Your task to perform on an android device: toggle data saver in the chrome app Image 0: 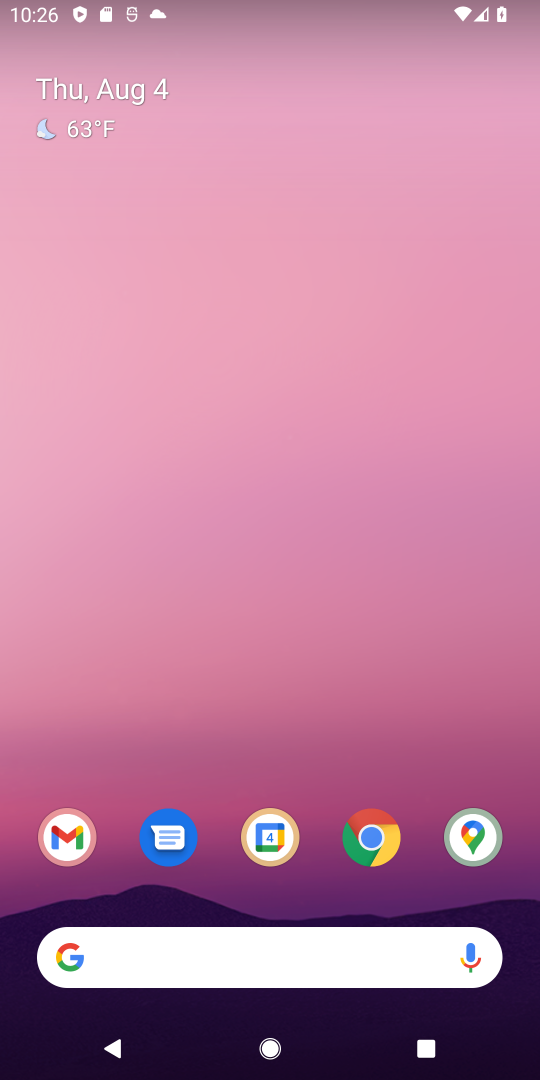
Step 0: press home button
Your task to perform on an android device: toggle data saver in the chrome app Image 1: 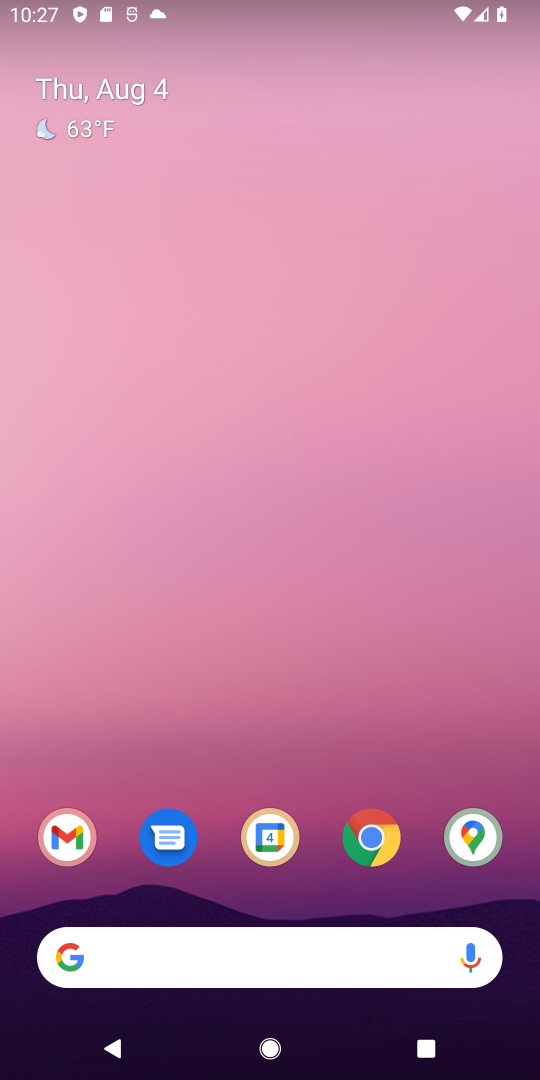
Step 1: click (366, 825)
Your task to perform on an android device: toggle data saver in the chrome app Image 2: 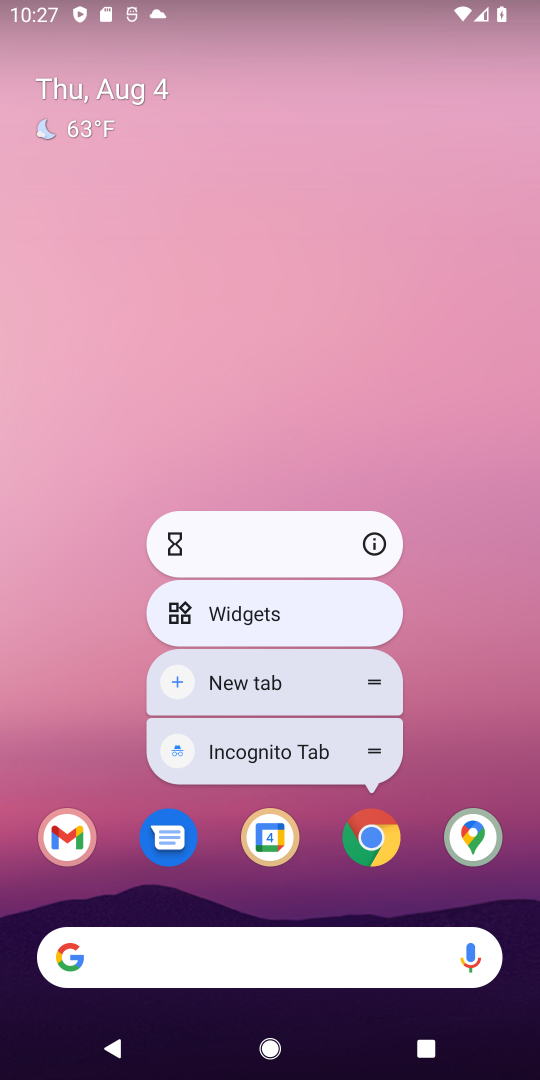
Step 2: click (369, 837)
Your task to perform on an android device: toggle data saver in the chrome app Image 3: 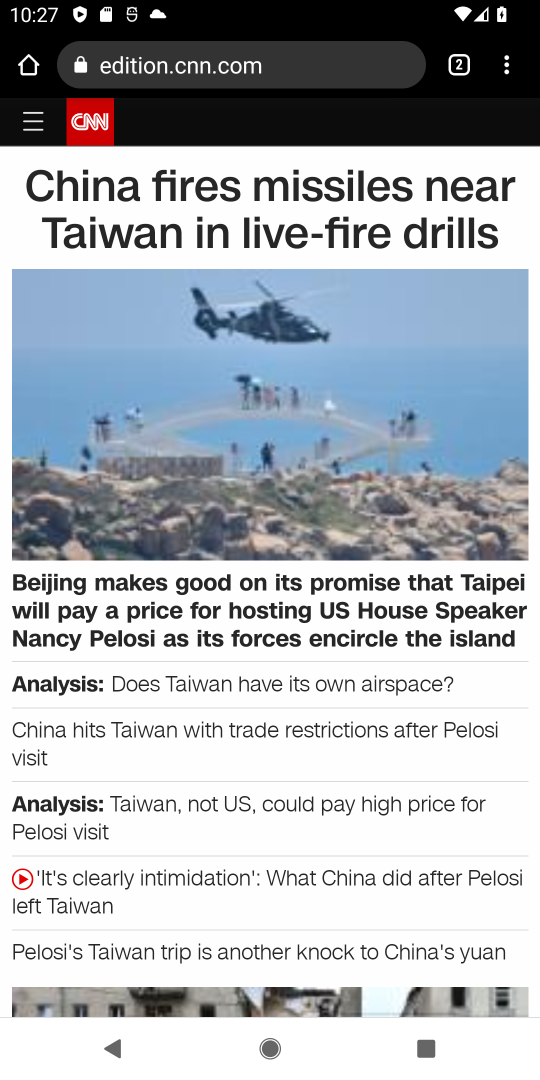
Step 3: click (505, 65)
Your task to perform on an android device: toggle data saver in the chrome app Image 4: 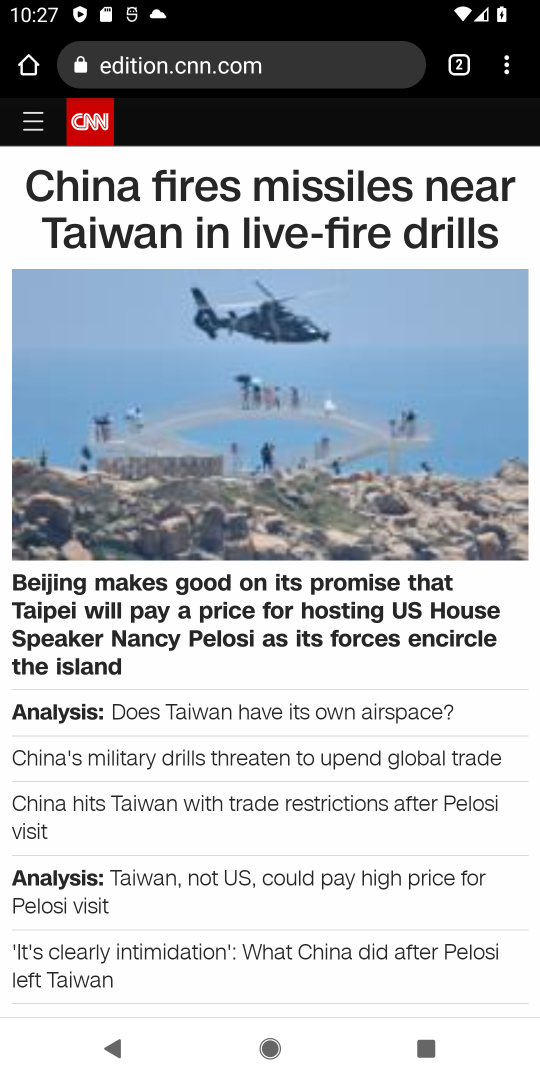
Step 4: click (512, 72)
Your task to perform on an android device: toggle data saver in the chrome app Image 5: 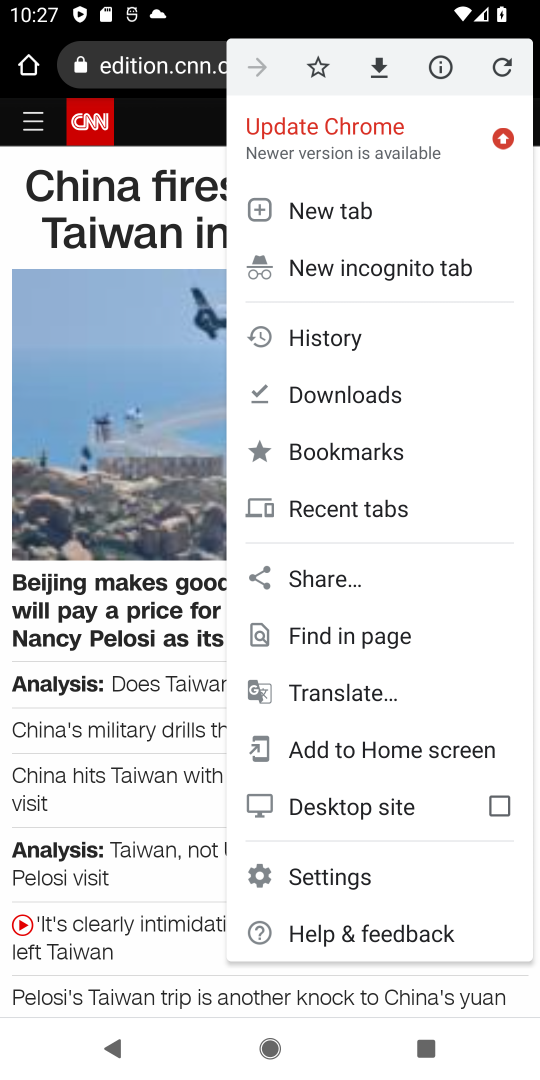
Step 5: click (377, 873)
Your task to perform on an android device: toggle data saver in the chrome app Image 6: 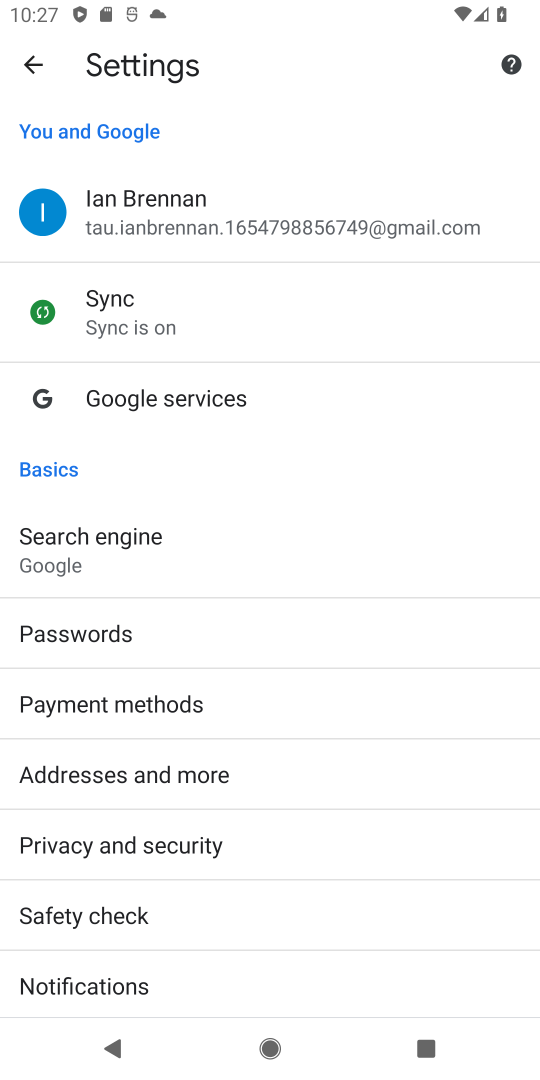
Step 6: drag from (248, 967) to (354, 243)
Your task to perform on an android device: toggle data saver in the chrome app Image 7: 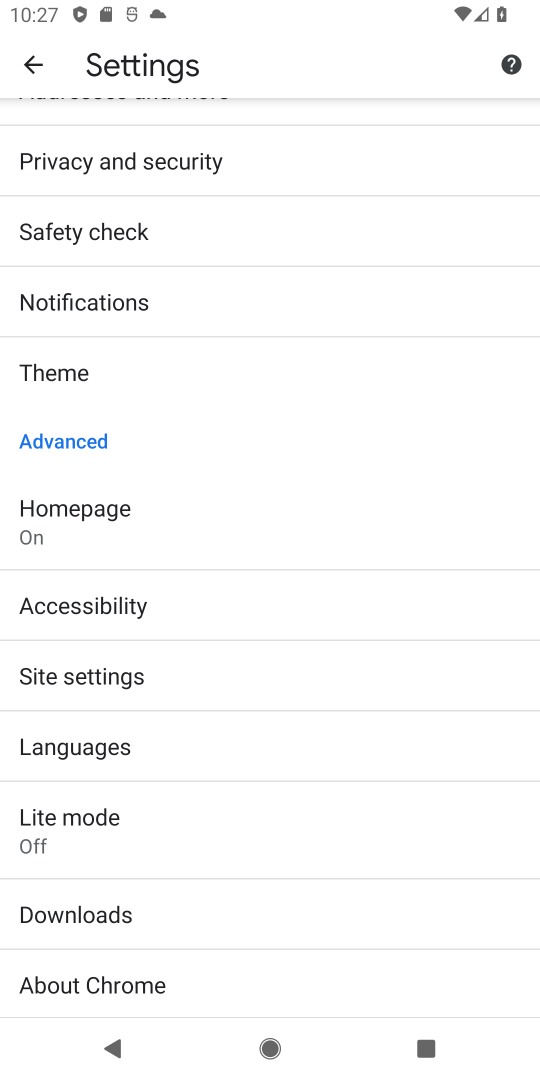
Step 7: click (110, 837)
Your task to perform on an android device: toggle data saver in the chrome app Image 8: 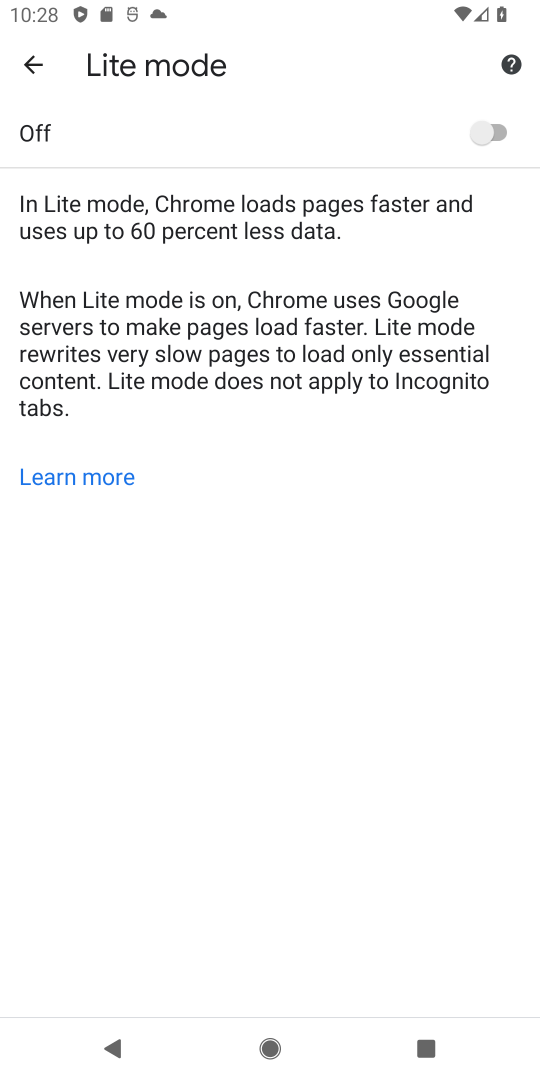
Step 8: click (498, 138)
Your task to perform on an android device: toggle data saver in the chrome app Image 9: 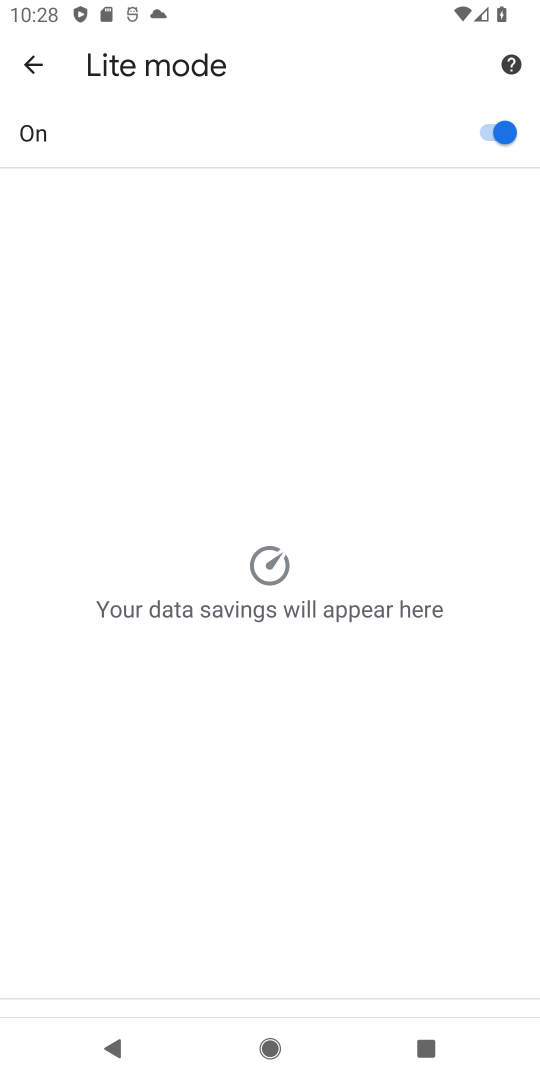
Step 9: task complete